Your task to perform on an android device: Open Youtube and go to "Your channel" Image 0: 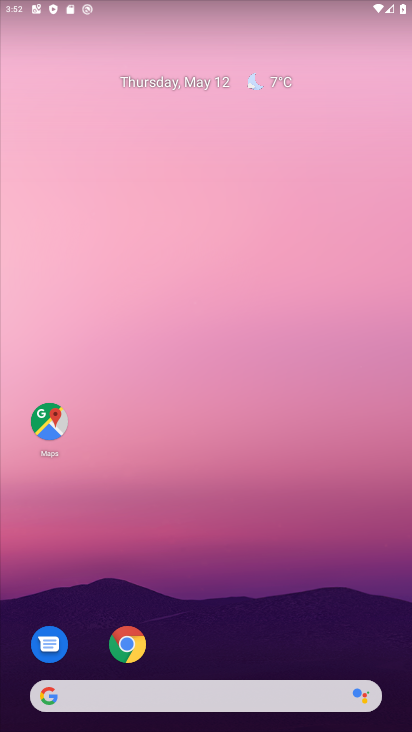
Step 0: drag from (213, 659) to (225, 27)
Your task to perform on an android device: Open Youtube and go to "Your channel" Image 1: 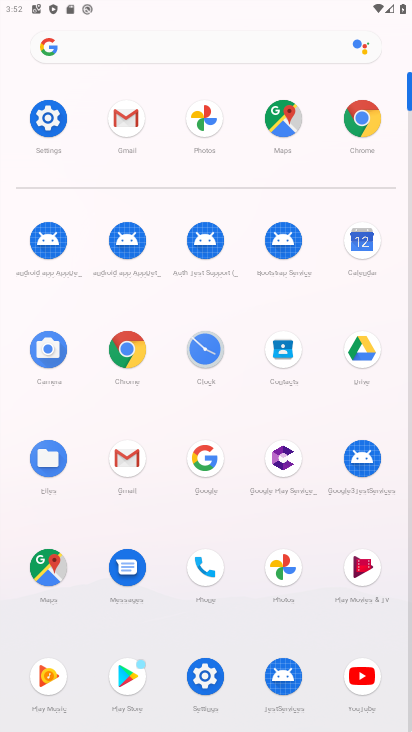
Step 1: click (360, 666)
Your task to perform on an android device: Open Youtube and go to "Your channel" Image 2: 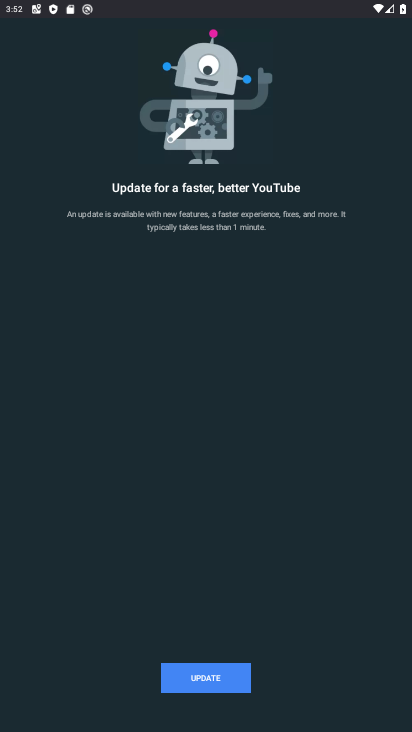
Step 2: click (198, 672)
Your task to perform on an android device: Open Youtube and go to "Your channel" Image 3: 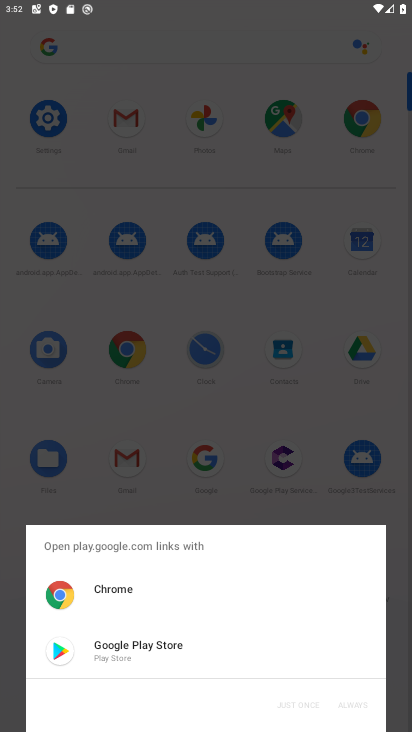
Step 3: click (113, 661)
Your task to perform on an android device: Open Youtube and go to "Your channel" Image 4: 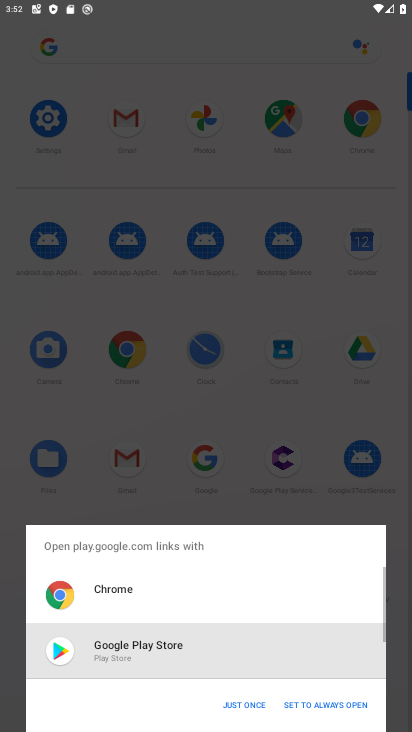
Step 4: click (237, 708)
Your task to perform on an android device: Open Youtube and go to "Your channel" Image 5: 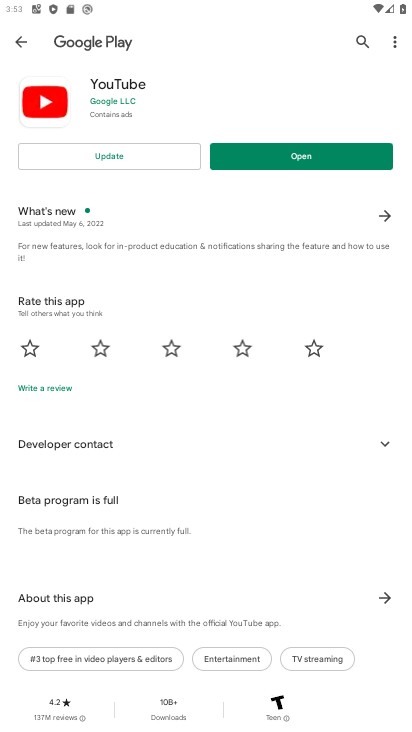
Step 5: click (110, 157)
Your task to perform on an android device: Open Youtube and go to "Your channel" Image 6: 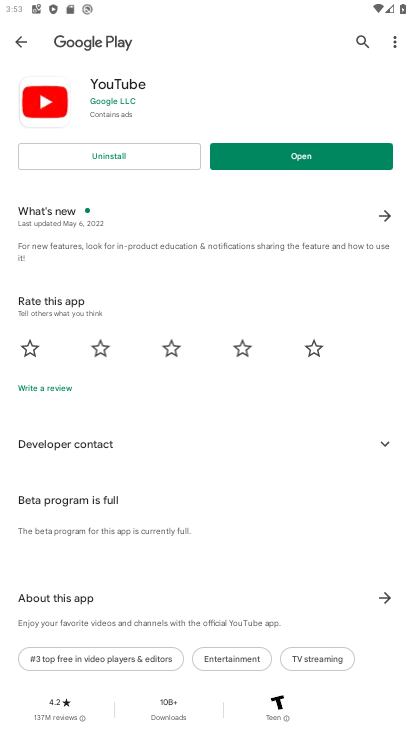
Step 6: click (269, 161)
Your task to perform on an android device: Open Youtube and go to "Your channel" Image 7: 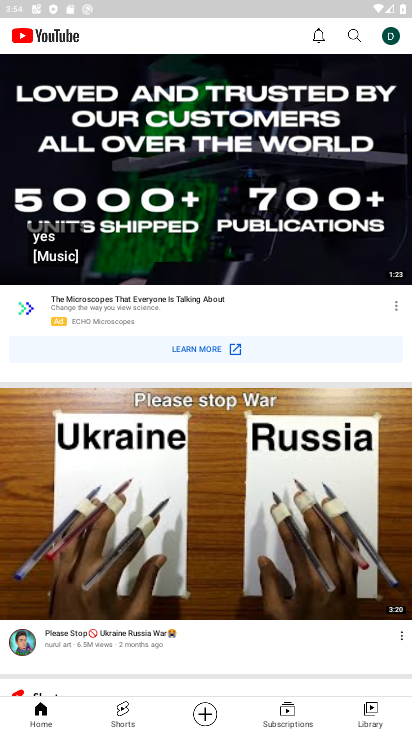
Step 7: click (394, 37)
Your task to perform on an android device: Open Youtube and go to "Your channel" Image 8: 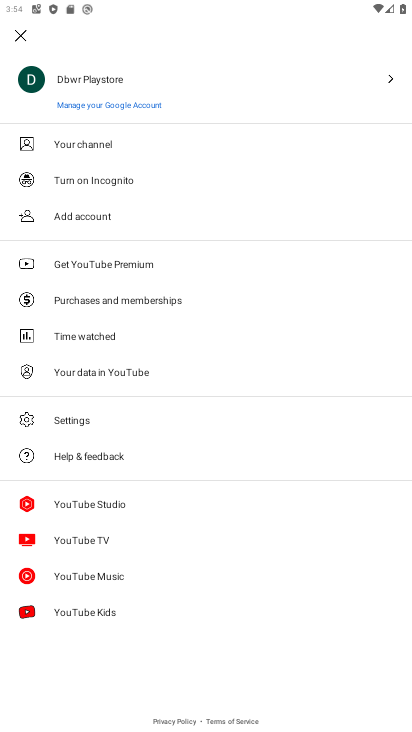
Step 8: click (114, 141)
Your task to perform on an android device: Open Youtube and go to "Your channel" Image 9: 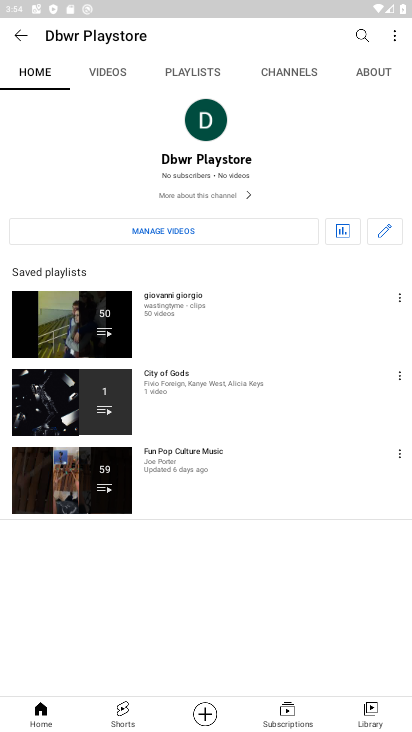
Step 9: task complete